Your task to perform on an android device: Is it going to rain this weekend? Image 0: 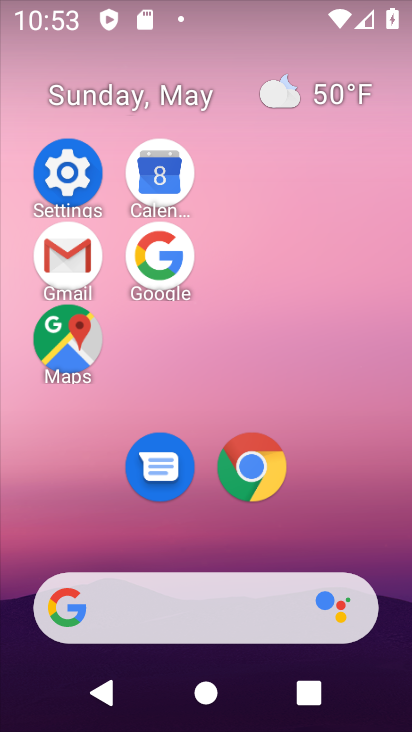
Step 0: click (157, 282)
Your task to perform on an android device: Is it going to rain this weekend? Image 1: 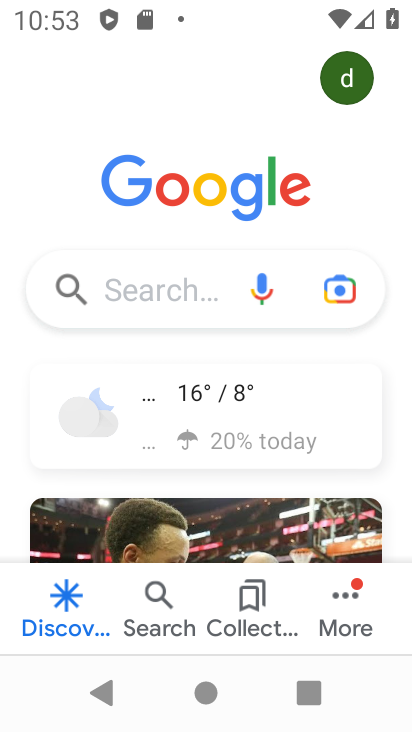
Step 1: click (185, 426)
Your task to perform on an android device: Is it going to rain this weekend? Image 2: 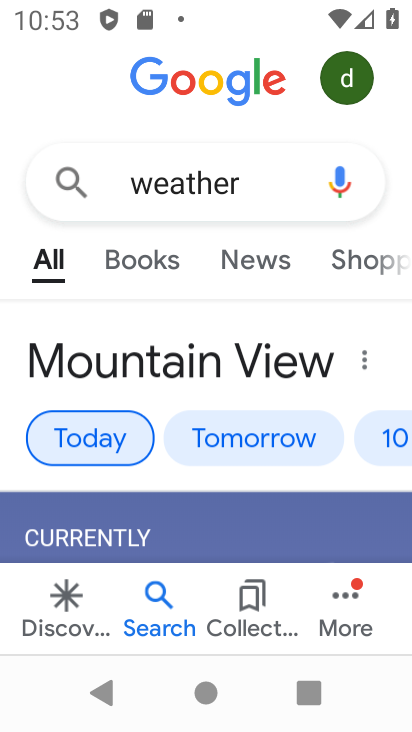
Step 2: task complete